Your task to perform on an android device: open chrome privacy settings Image 0: 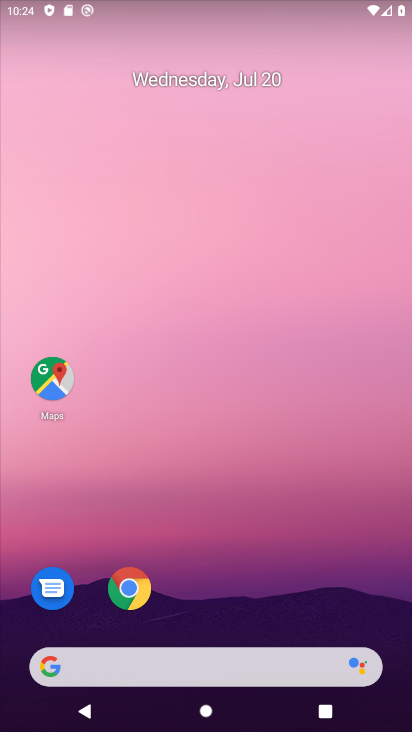
Step 0: click (136, 584)
Your task to perform on an android device: open chrome privacy settings Image 1: 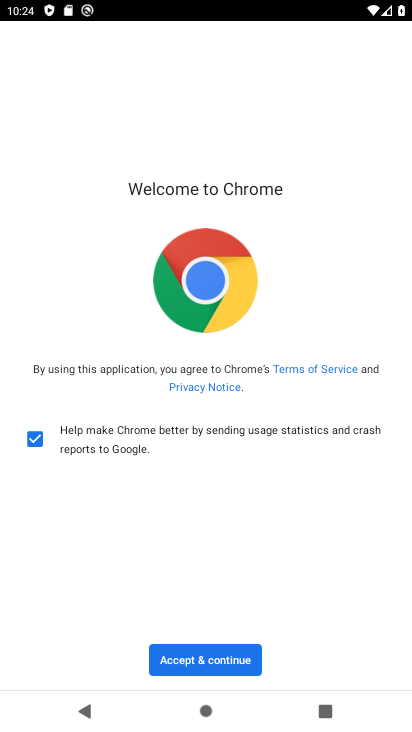
Step 1: click (225, 654)
Your task to perform on an android device: open chrome privacy settings Image 2: 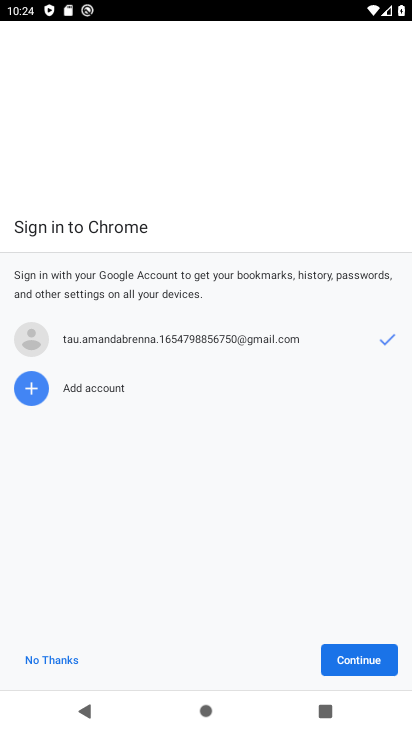
Step 2: click (325, 662)
Your task to perform on an android device: open chrome privacy settings Image 3: 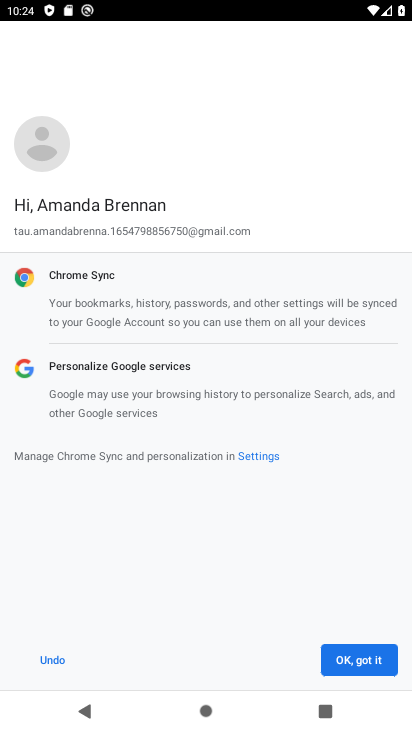
Step 3: click (325, 662)
Your task to perform on an android device: open chrome privacy settings Image 4: 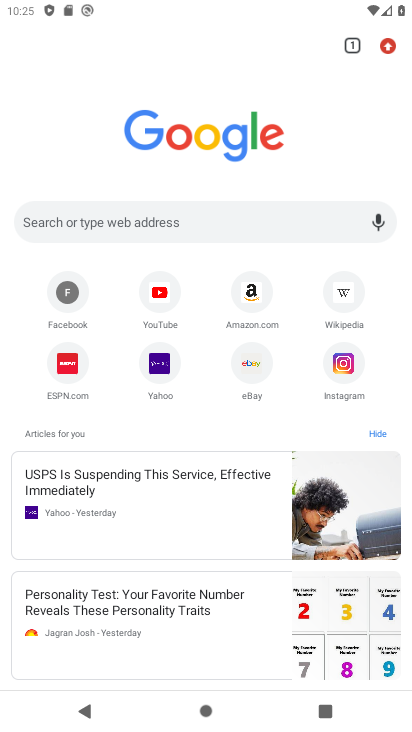
Step 4: click (393, 42)
Your task to perform on an android device: open chrome privacy settings Image 5: 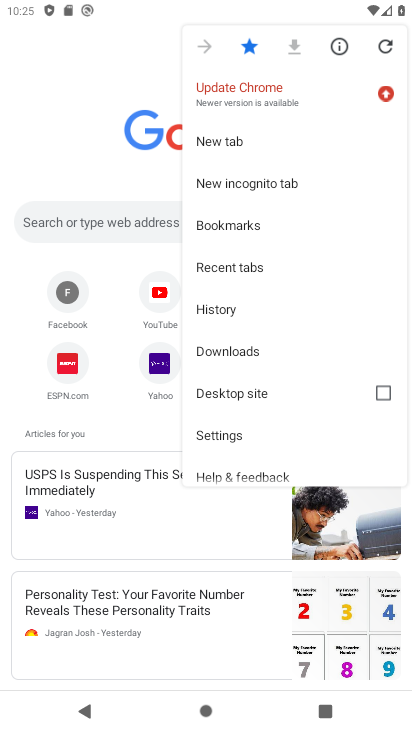
Step 5: click (229, 434)
Your task to perform on an android device: open chrome privacy settings Image 6: 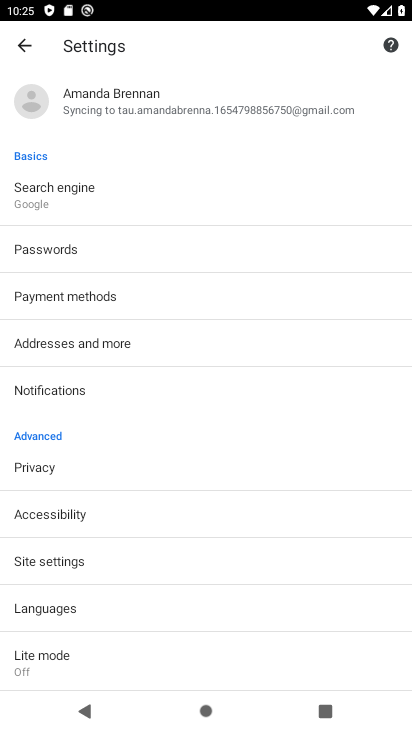
Step 6: click (30, 473)
Your task to perform on an android device: open chrome privacy settings Image 7: 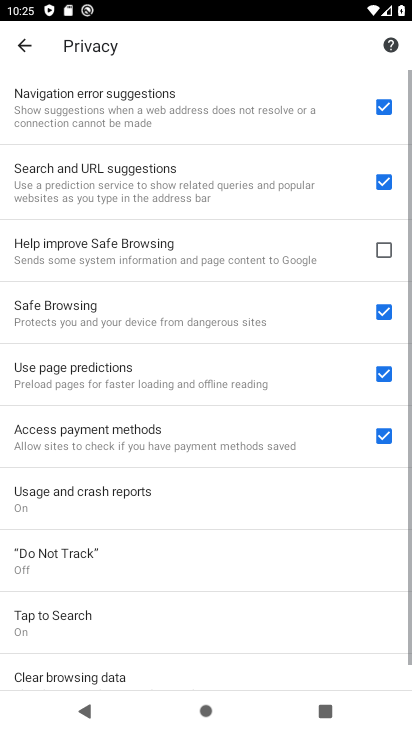
Step 7: task complete